Your task to perform on an android device: read, delete, or share a saved page in the chrome app Image 0: 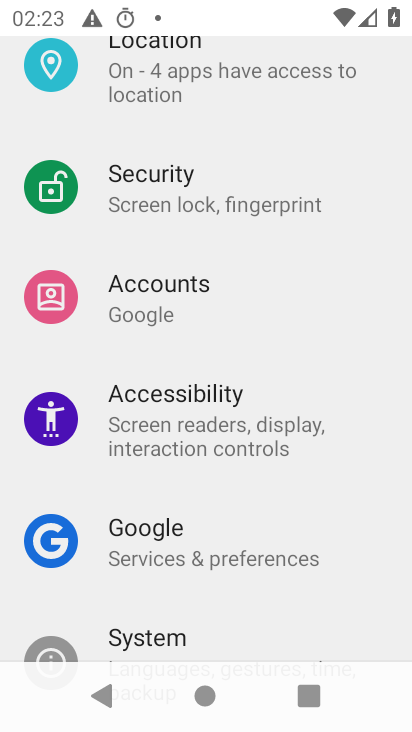
Step 0: press home button
Your task to perform on an android device: read, delete, or share a saved page in the chrome app Image 1: 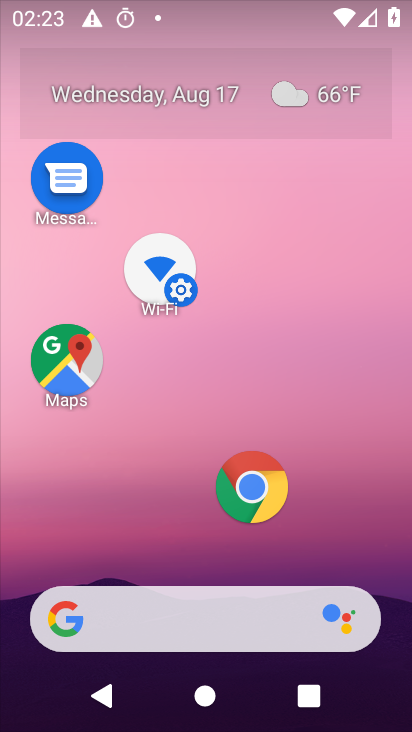
Step 1: click (251, 487)
Your task to perform on an android device: read, delete, or share a saved page in the chrome app Image 2: 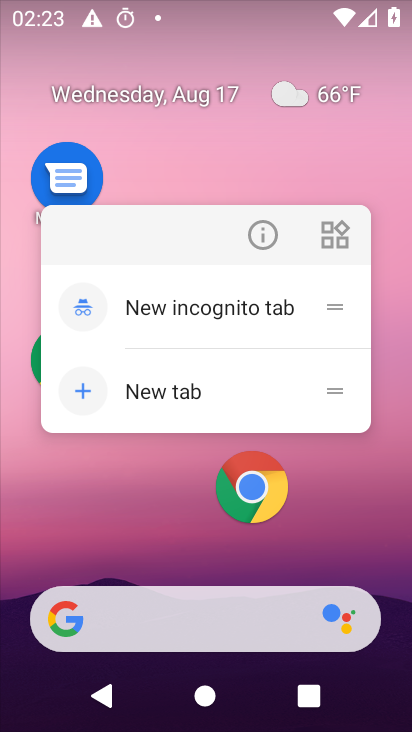
Step 2: click (251, 487)
Your task to perform on an android device: read, delete, or share a saved page in the chrome app Image 3: 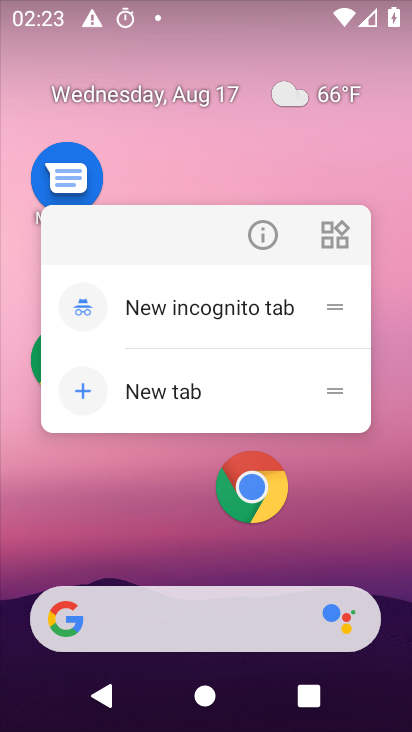
Step 3: click (251, 487)
Your task to perform on an android device: read, delete, or share a saved page in the chrome app Image 4: 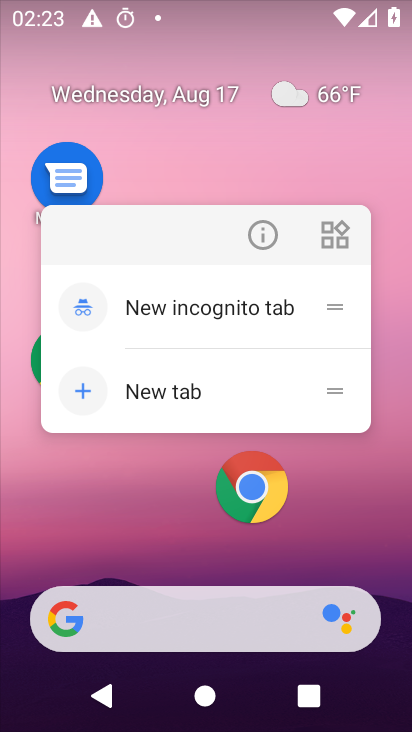
Step 4: click (251, 487)
Your task to perform on an android device: read, delete, or share a saved page in the chrome app Image 5: 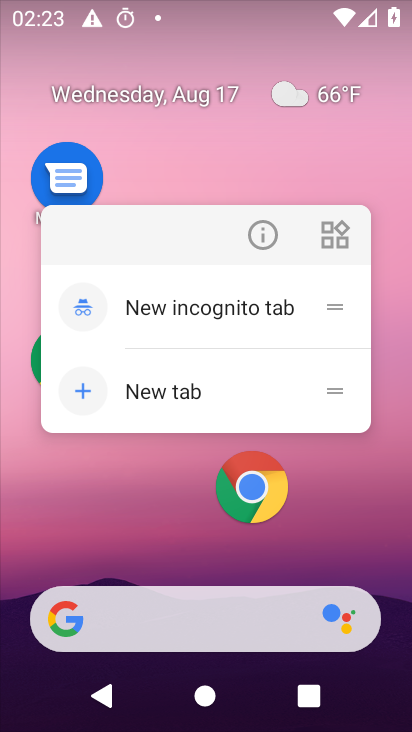
Step 5: click (254, 489)
Your task to perform on an android device: read, delete, or share a saved page in the chrome app Image 6: 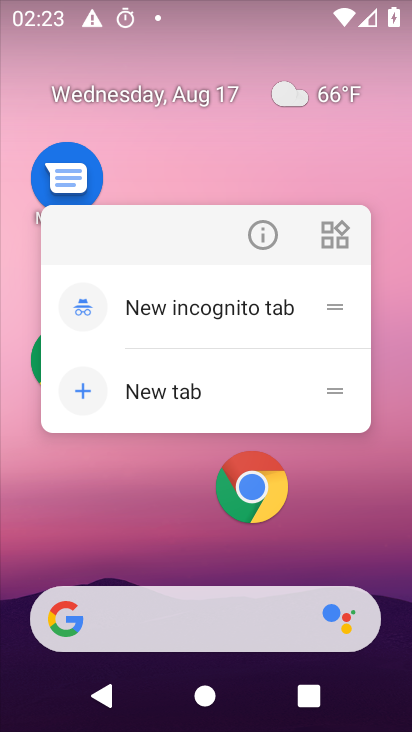
Step 6: click (254, 489)
Your task to perform on an android device: read, delete, or share a saved page in the chrome app Image 7: 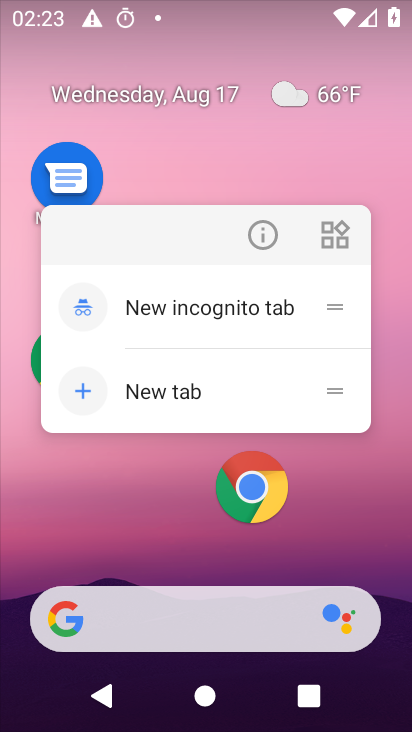
Step 7: click (254, 489)
Your task to perform on an android device: read, delete, or share a saved page in the chrome app Image 8: 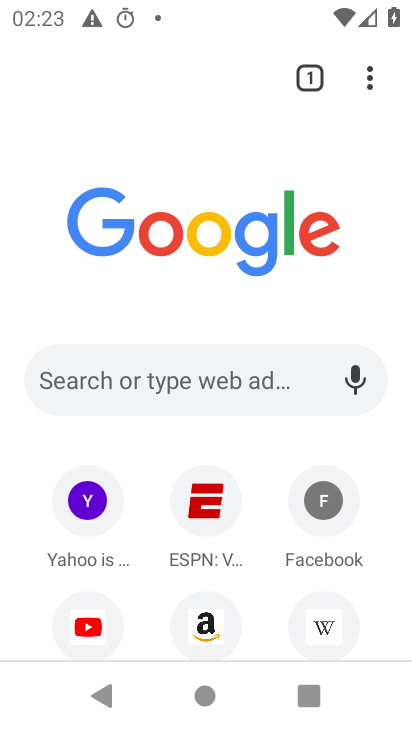
Step 8: drag from (369, 77) to (103, 511)
Your task to perform on an android device: read, delete, or share a saved page in the chrome app Image 9: 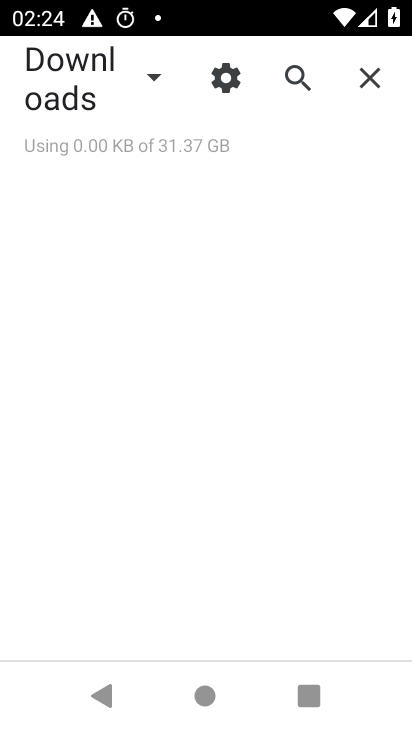
Step 9: click (156, 83)
Your task to perform on an android device: read, delete, or share a saved page in the chrome app Image 10: 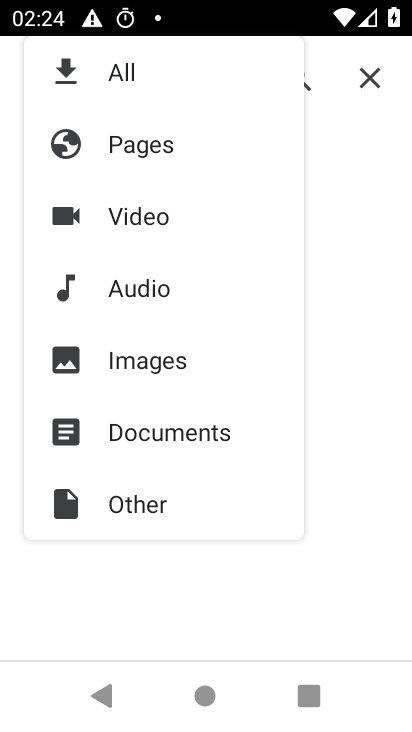
Step 10: click (127, 149)
Your task to perform on an android device: read, delete, or share a saved page in the chrome app Image 11: 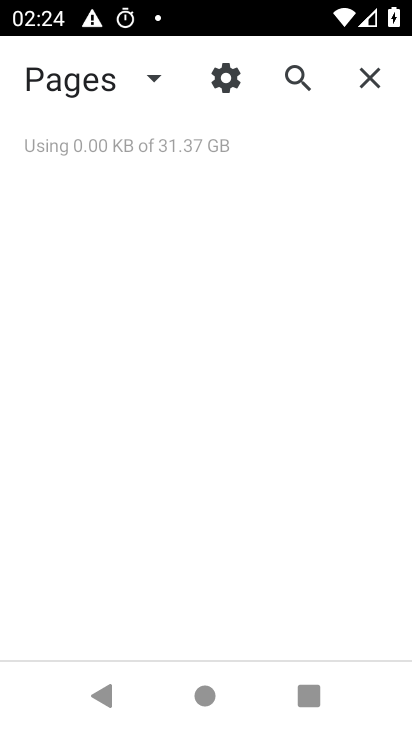
Step 11: task complete